Your task to perform on an android device: What's the weather going to be this weekend? Image 0: 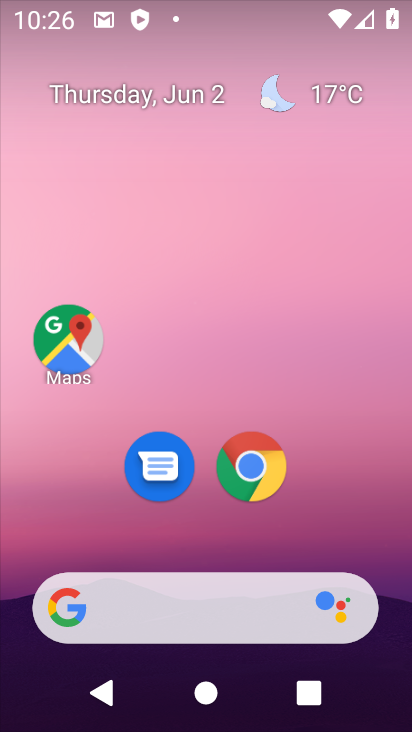
Step 0: press home button
Your task to perform on an android device: What's the weather going to be this weekend? Image 1: 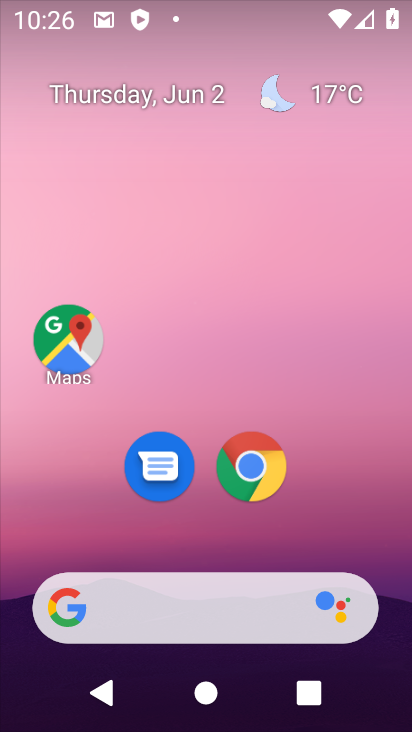
Step 1: click (62, 611)
Your task to perform on an android device: What's the weather going to be this weekend? Image 2: 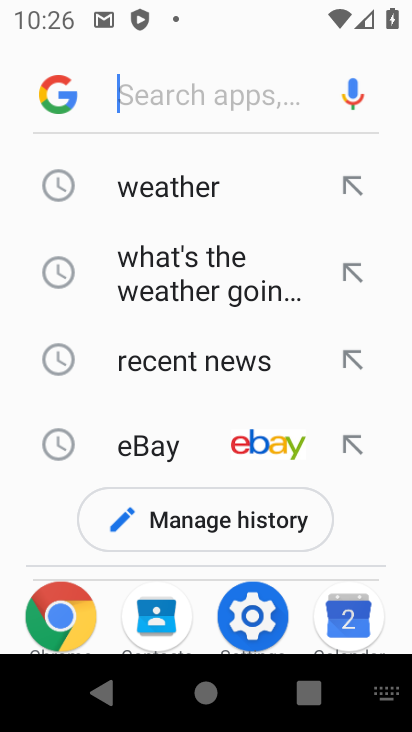
Step 2: click (244, 299)
Your task to perform on an android device: What's the weather going to be this weekend? Image 3: 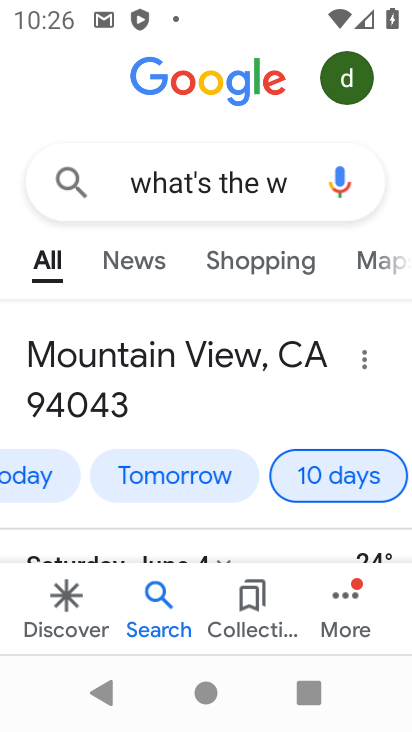
Step 3: drag from (272, 201) to (17, 183)
Your task to perform on an android device: What's the weather going to be this weekend? Image 4: 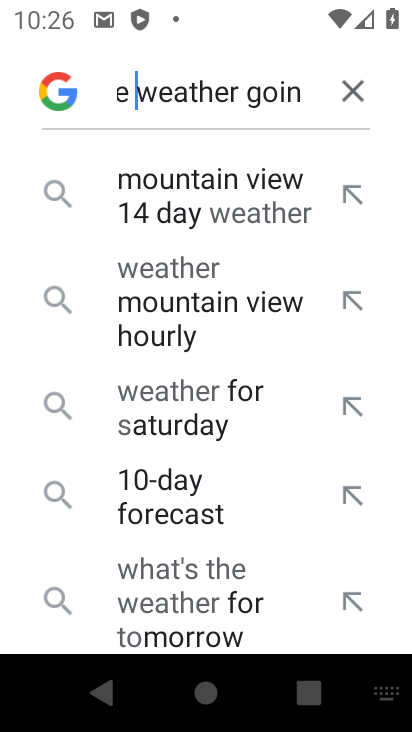
Step 4: drag from (266, 108) to (38, 128)
Your task to perform on an android device: What's the weather going to be this weekend? Image 5: 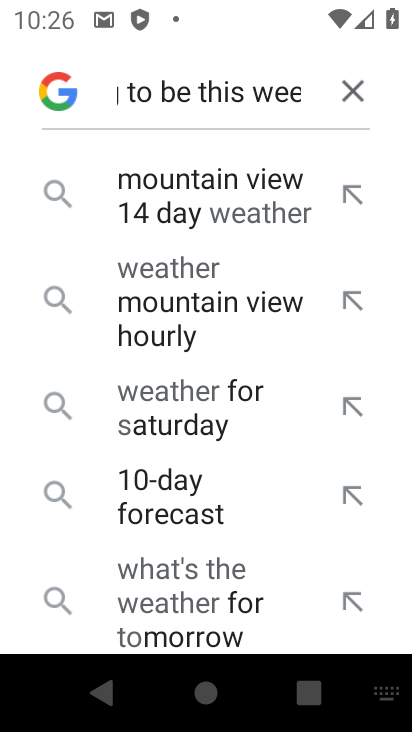
Step 5: click (216, 116)
Your task to perform on an android device: What's the weather going to be this weekend? Image 6: 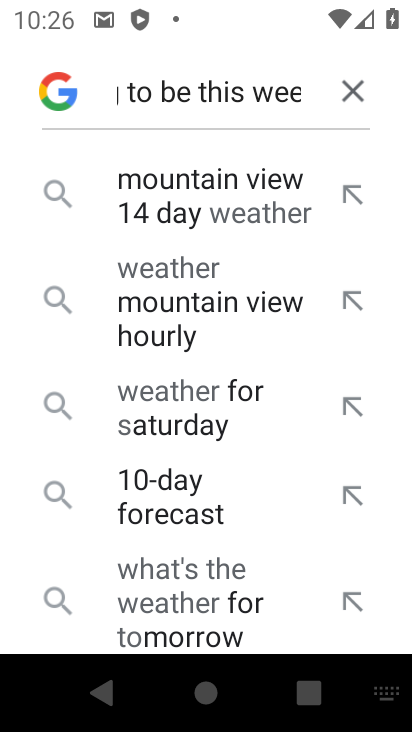
Step 6: click (183, 93)
Your task to perform on an android device: What's the weather going to be this weekend? Image 7: 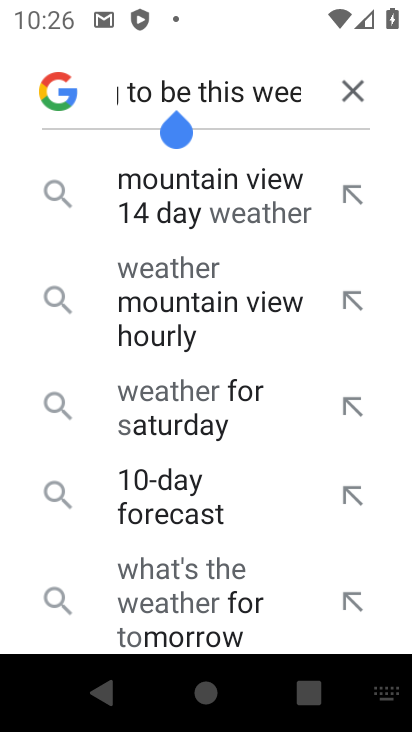
Step 7: click (305, 82)
Your task to perform on an android device: What's the weather going to be this weekend? Image 8: 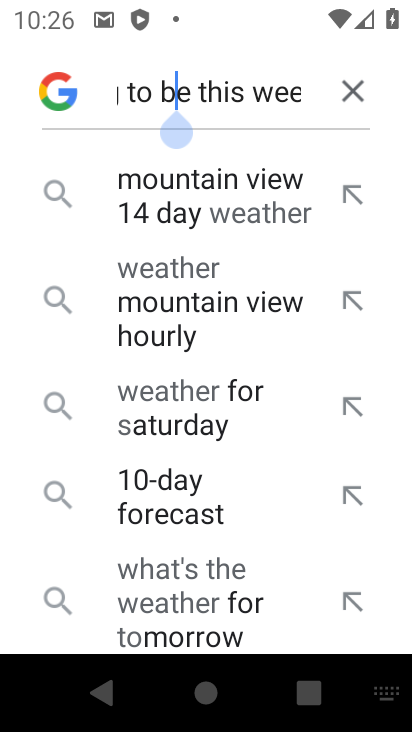
Step 8: click (288, 96)
Your task to perform on an android device: What's the weather going to be this weekend? Image 9: 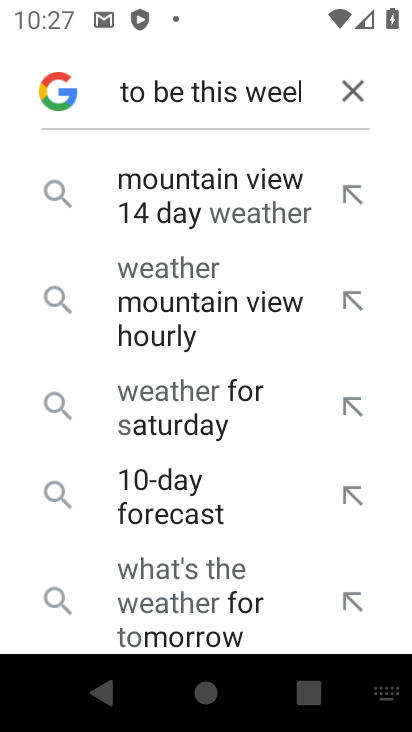
Step 9: click (313, 80)
Your task to perform on an android device: What's the weather going to be this weekend? Image 10: 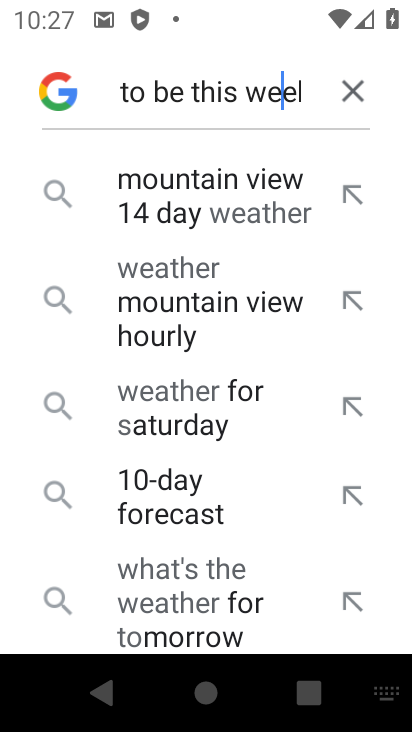
Step 10: click (353, 92)
Your task to perform on an android device: What's the weather going to be this weekend? Image 11: 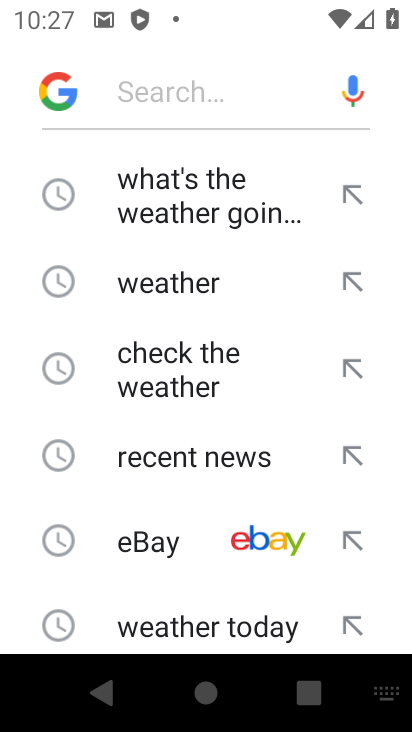
Step 11: click (223, 205)
Your task to perform on an android device: What's the weather going to be this weekend? Image 12: 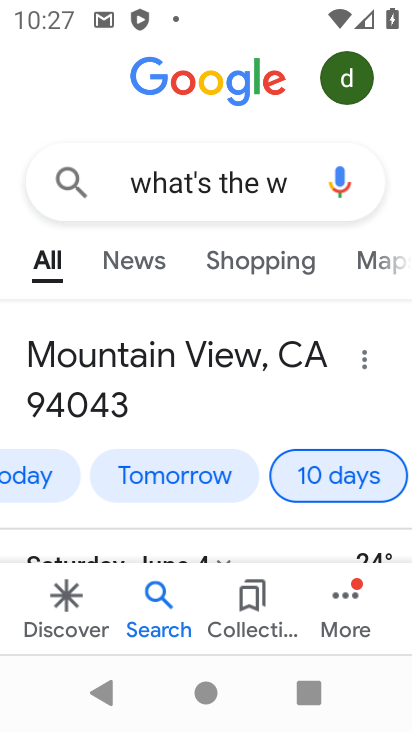
Step 12: task complete